Your task to perform on an android device: set the timer Image 0: 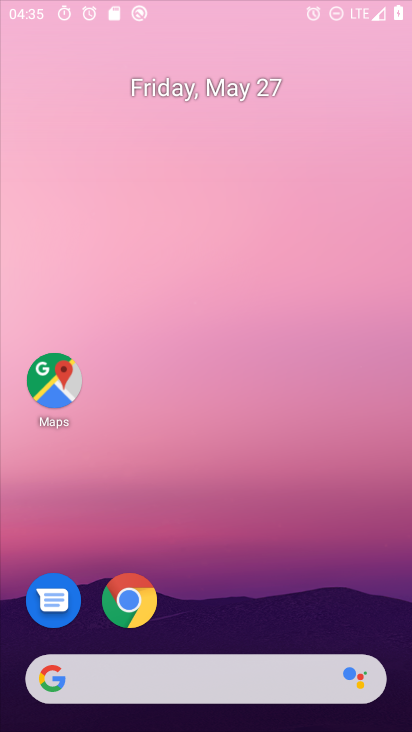
Step 0: click (204, 82)
Your task to perform on an android device: set the timer Image 1: 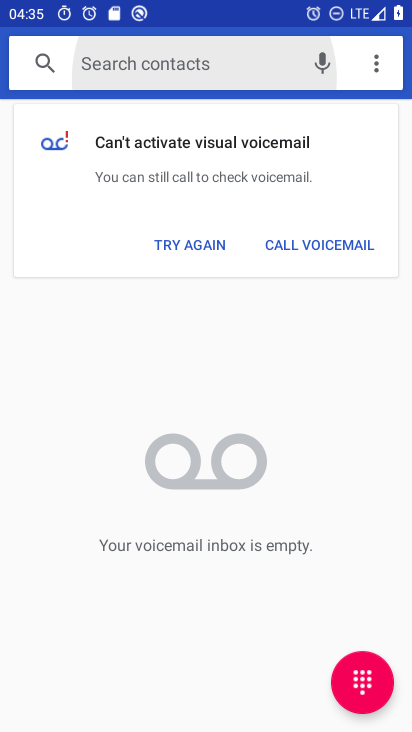
Step 1: press home button
Your task to perform on an android device: set the timer Image 2: 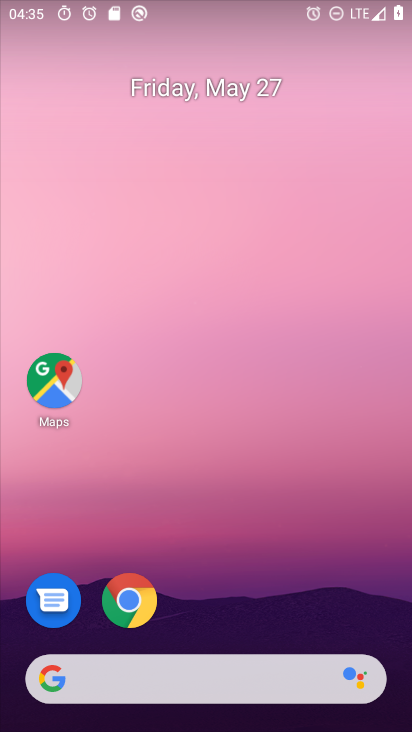
Step 2: drag from (212, 722) to (212, 181)
Your task to perform on an android device: set the timer Image 3: 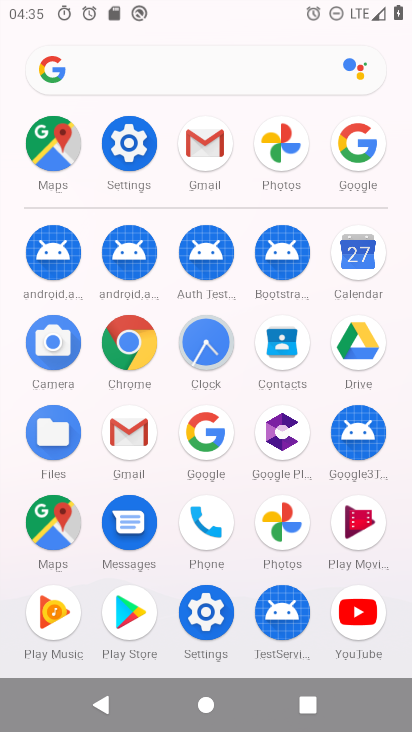
Step 3: click (208, 343)
Your task to perform on an android device: set the timer Image 4: 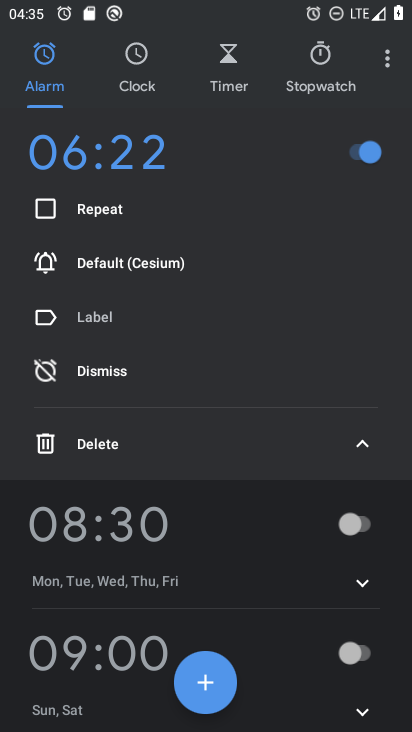
Step 4: click (229, 68)
Your task to perform on an android device: set the timer Image 5: 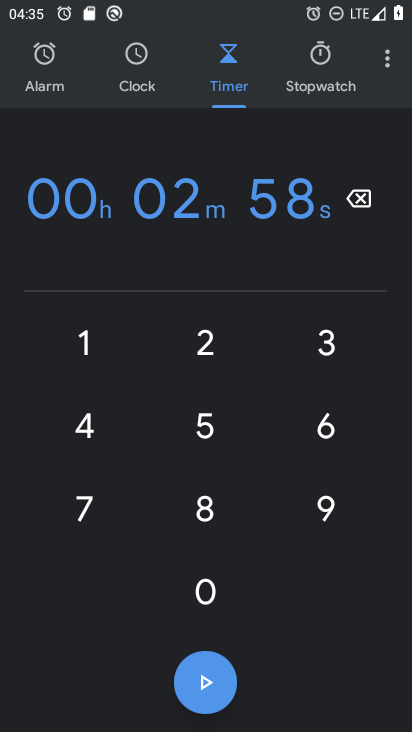
Step 5: click (211, 344)
Your task to perform on an android device: set the timer Image 6: 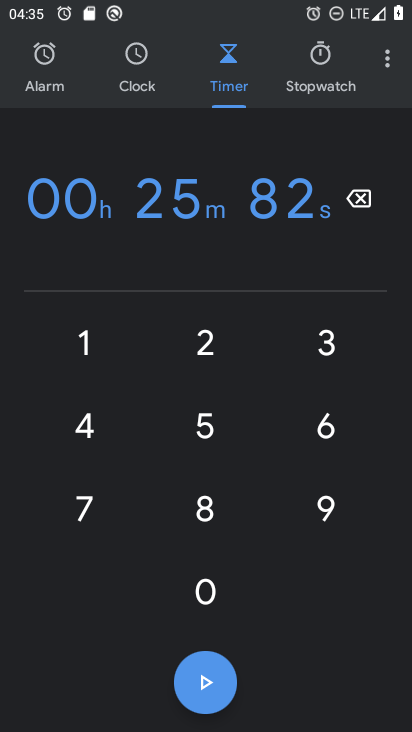
Step 6: click (199, 422)
Your task to perform on an android device: set the timer Image 7: 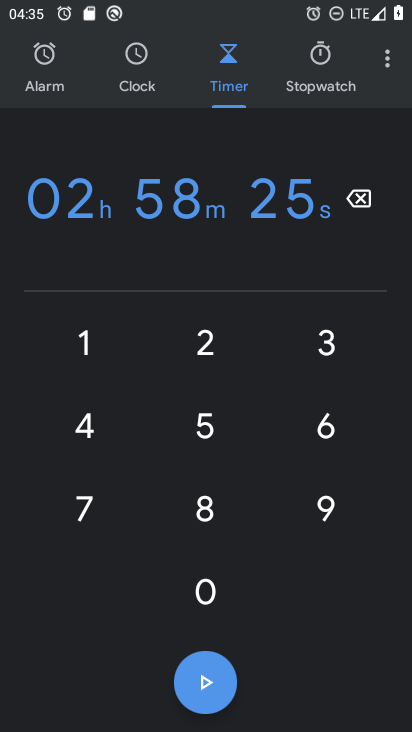
Step 7: click (214, 680)
Your task to perform on an android device: set the timer Image 8: 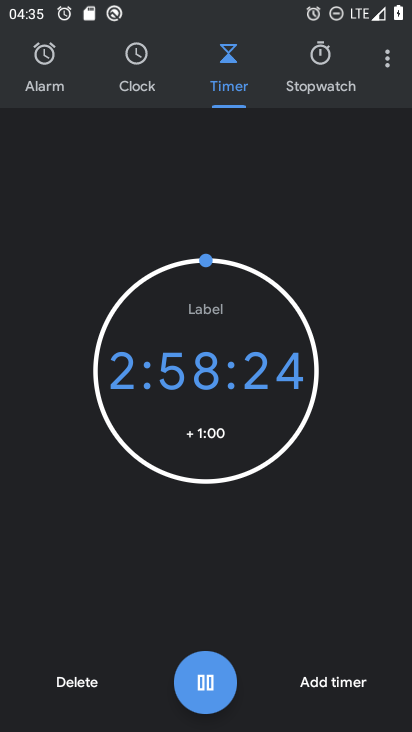
Step 8: task complete